Your task to perform on an android device: Open Android settings Image 0: 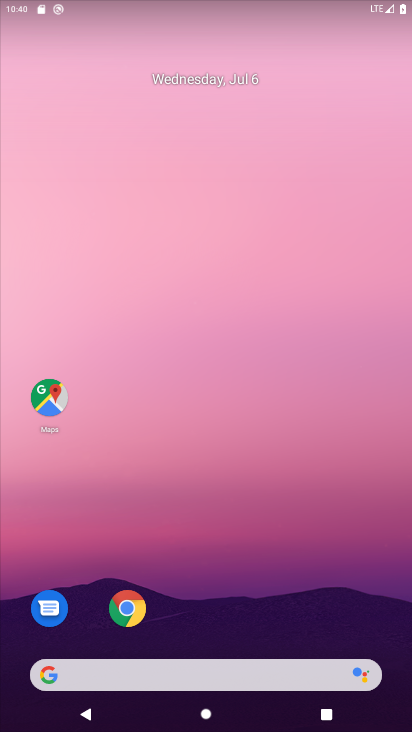
Step 0: drag from (246, 310) to (242, 83)
Your task to perform on an android device: Open Android settings Image 1: 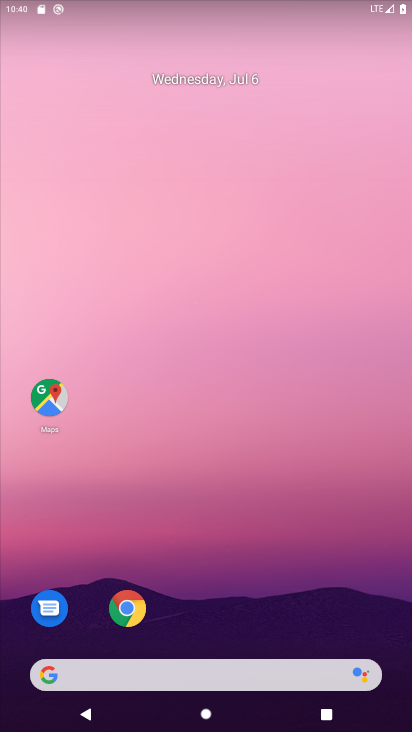
Step 1: drag from (198, 404) to (281, 7)
Your task to perform on an android device: Open Android settings Image 2: 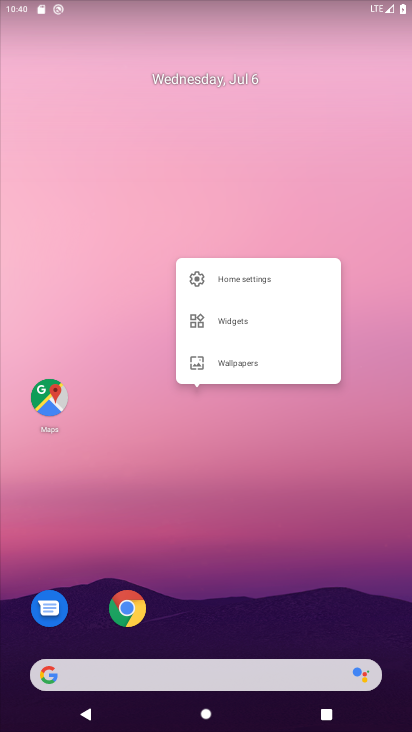
Step 2: drag from (219, 612) to (272, 6)
Your task to perform on an android device: Open Android settings Image 3: 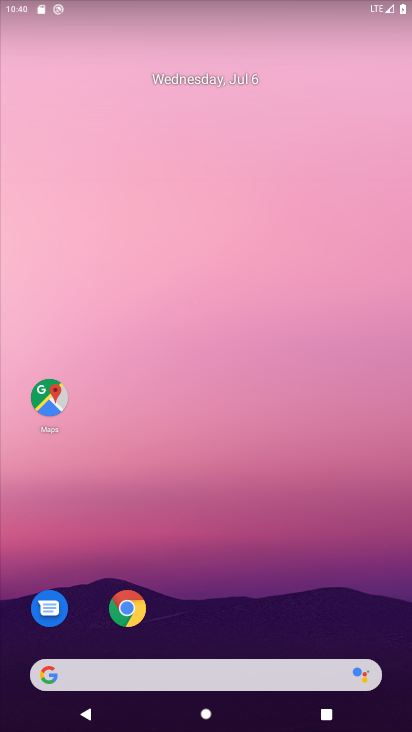
Step 3: drag from (231, 644) to (267, 125)
Your task to perform on an android device: Open Android settings Image 4: 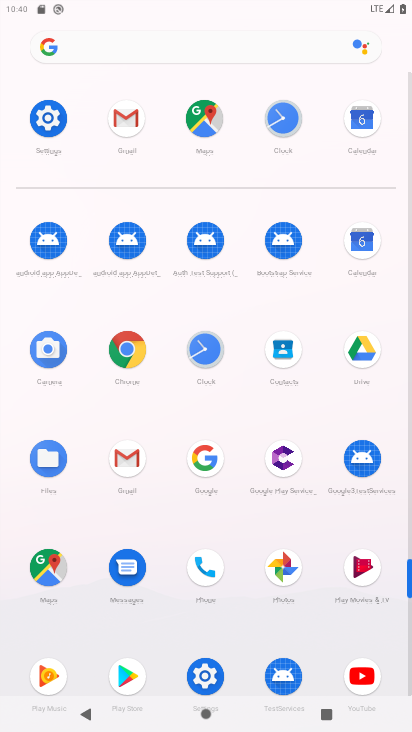
Step 4: click (222, 667)
Your task to perform on an android device: Open Android settings Image 5: 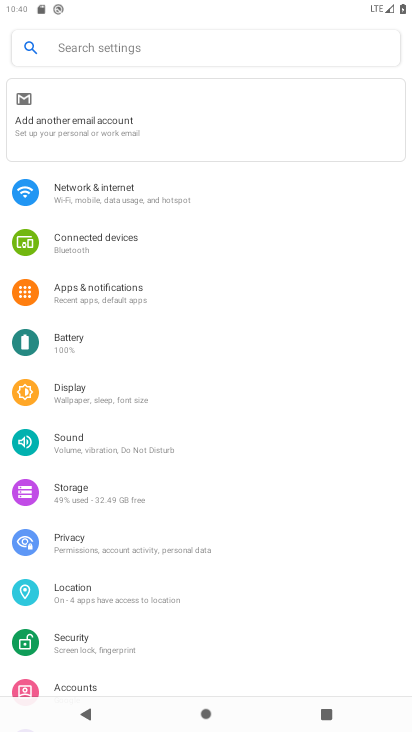
Step 5: drag from (101, 624) to (151, 297)
Your task to perform on an android device: Open Android settings Image 6: 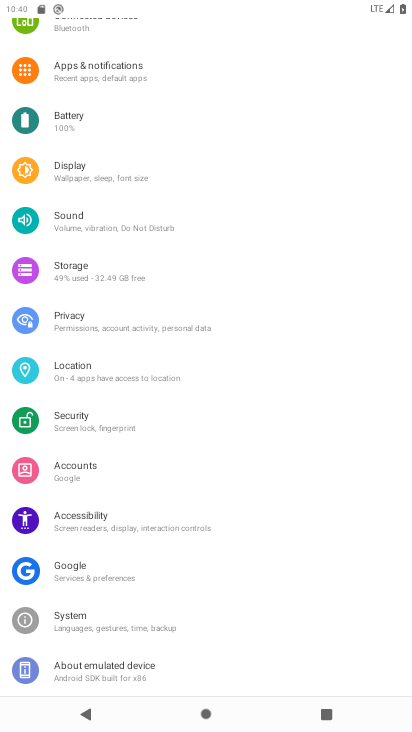
Step 6: click (89, 662)
Your task to perform on an android device: Open Android settings Image 7: 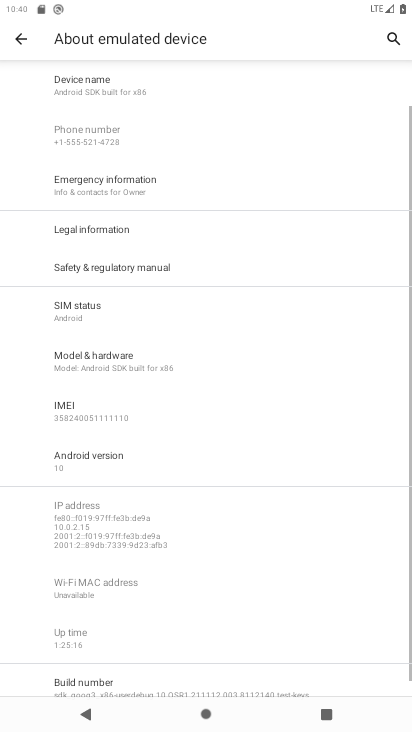
Step 7: click (131, 471)
Your task to perform on an android device: Open Android settings Image 8: 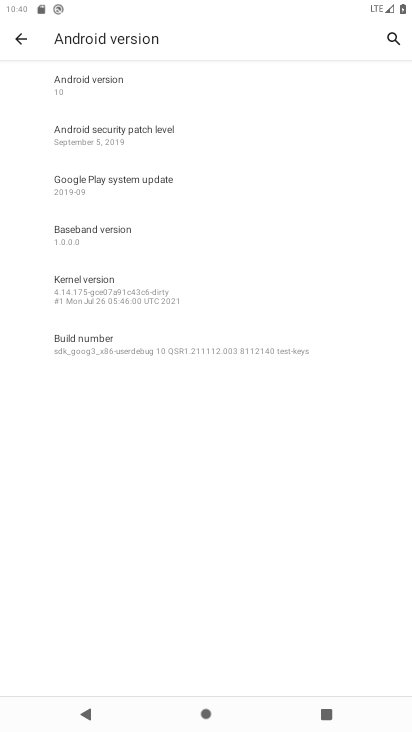
Step 8: task complete